Your task to perform on an android device: add a label to a message in the gmail app Image 0: 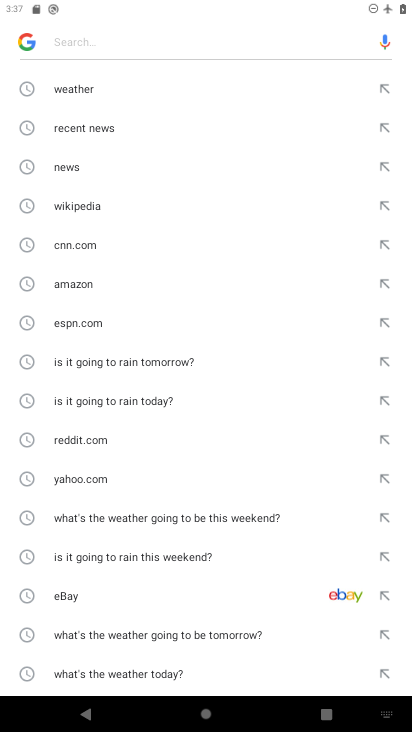
Step 0: drag from (257, 615) to (339, 244)
Your task to perform on an android device: add a label to a message in the gmail app Image 1: 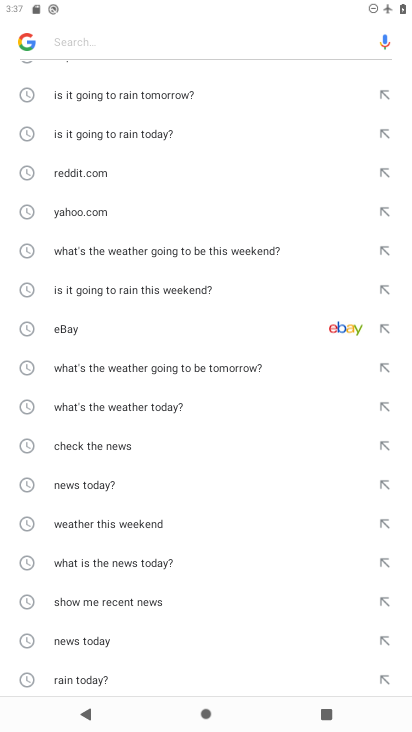
Step 1: press home button
Your task to perform on an android device: add a label to a message in the gmail app Image 2: 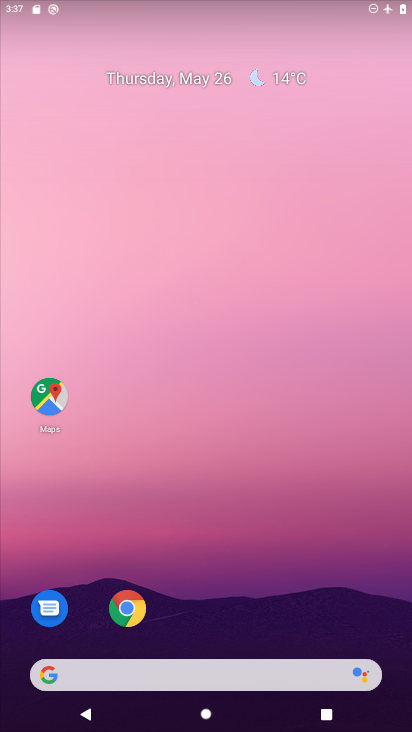
Step 2: drag from (332, 553) to (403, 90)
Your task to perform on an android device: add a label to a message in the gmail app Image 3: 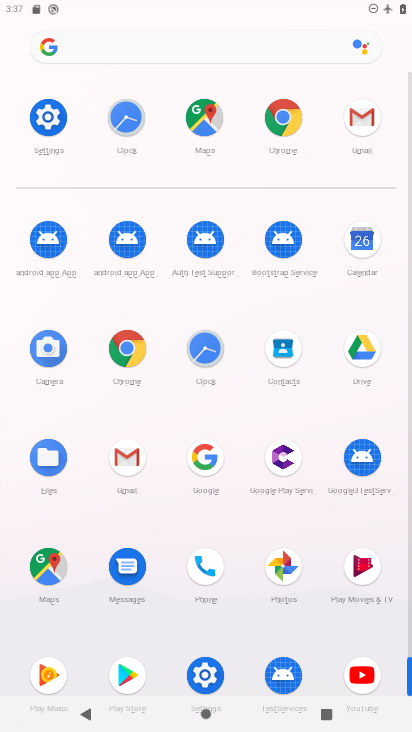
Step 3: click (359, 137)
Your task to perform on an android device: add a label to a message in the gmail app Image 4: 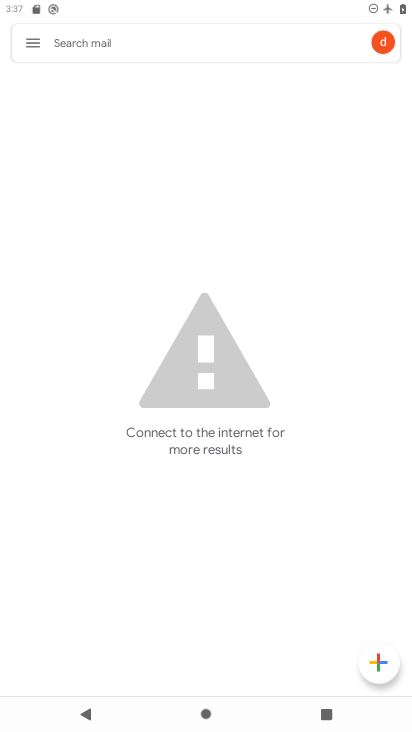
Step 4: task complete